Your task to perform on an android device: Open Yahoo.com Image 0: 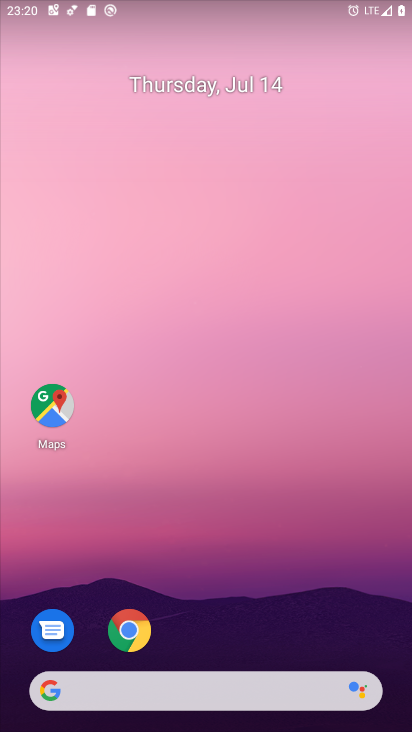
Step 0: drag from (225, 662) to (228, 332)
Your task to perform on an android device: Open Yahoo.com Image 1: 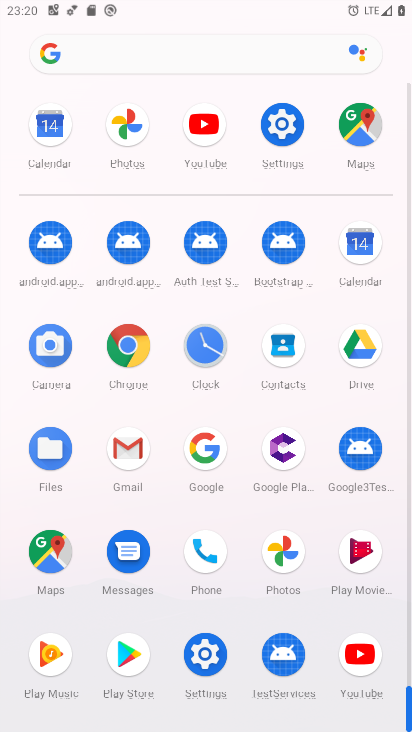
Step 1: click (179, 58)
Your task to perform on an android device: Open Yahoo.com Image 2: 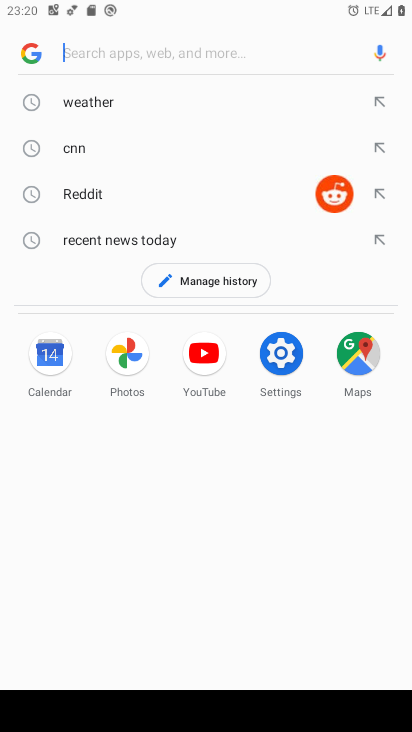
Step 2: type ""
Your task to perform on an android device: Open Yahoo.com Image 3: 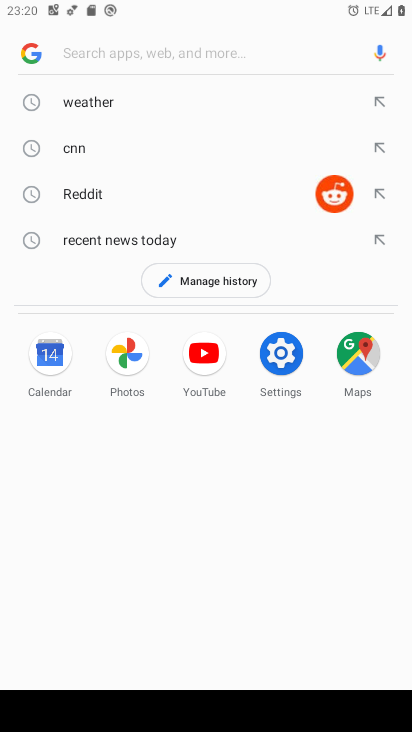
Step 3: type "Yahoo.com"
Your task to perform on an android device: Open Yahoo.com Image 4: 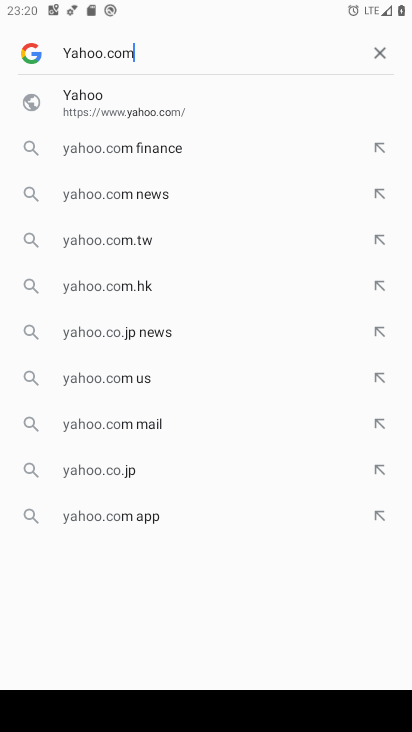
Step 4: type ""
Your task to perform on an android device: Open Yahoo.com Image 5: 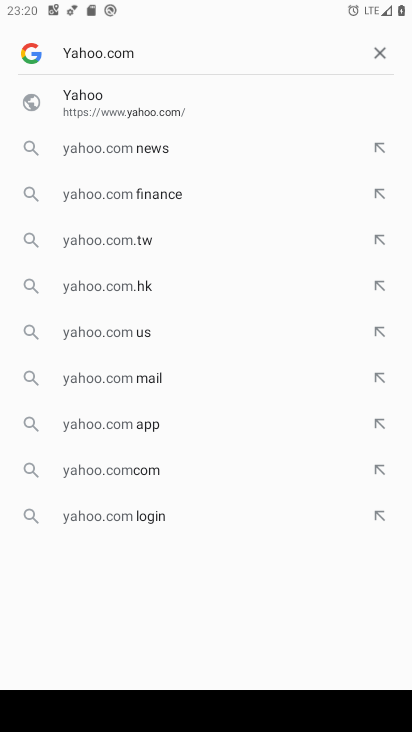
Step 5: click (128, 104)
Your task to perform on an android device: Open Yahoo.com Image 6: 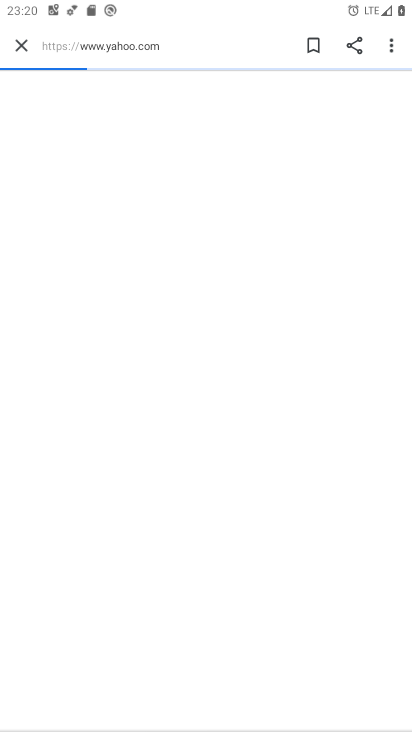
Step 6: drag from (270, 527) to (272, 385)
Your task to perform on an android device: Open Yahoo.com Image 7: 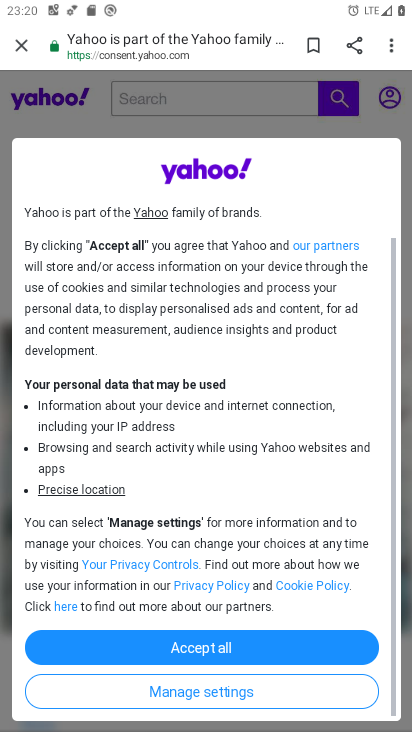
Step 7: drag from (254, 460) to (211, 148)
Your task to perform on an android device: Open Yahoo.com Image 8: 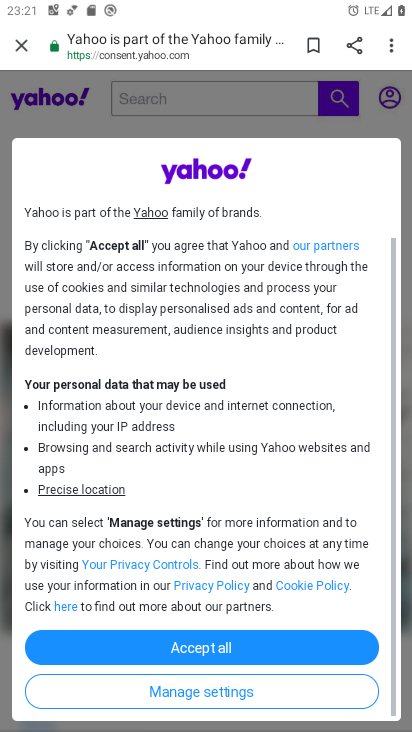
Step 8: click (336, 401)
Your task to perform on an android device: Open Yahoo.com Image 9: 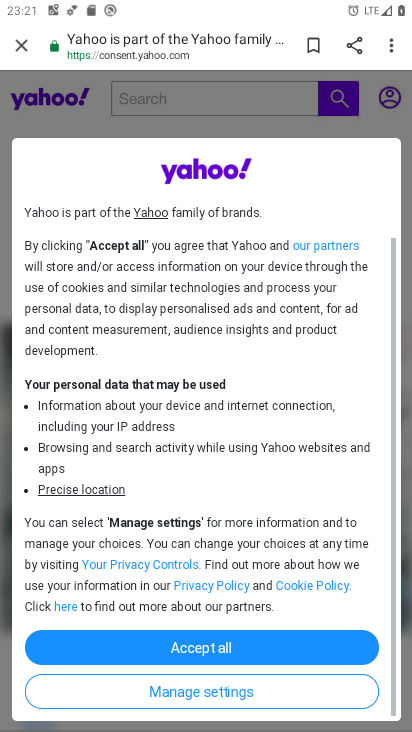
Step 9: task complete